Your task to perform on an android device: check data usage Image 0: 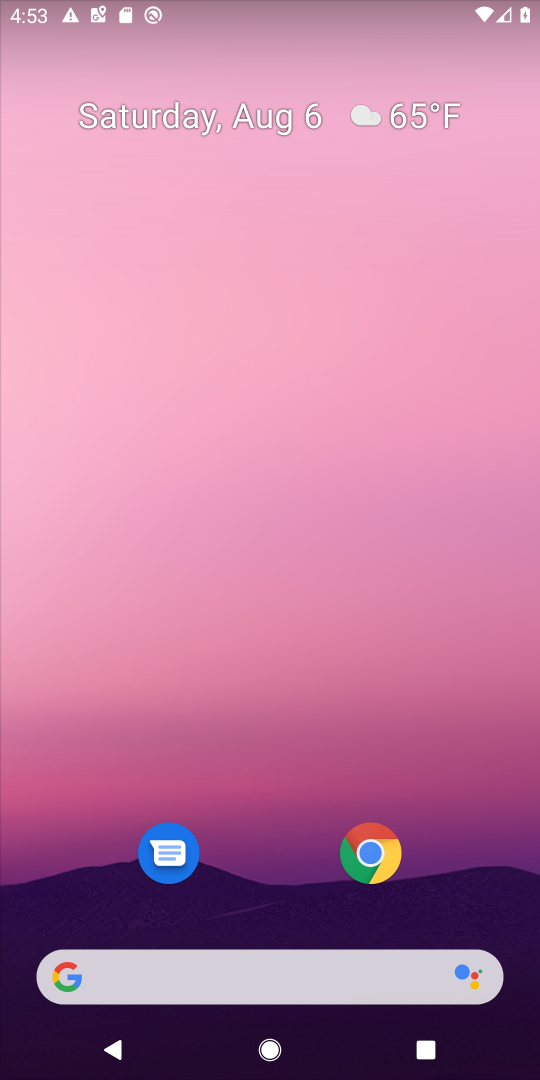
Step 0: drag from (299, 618) to (301, 155)
Your task to perform on an android device: check data usage Image 1: 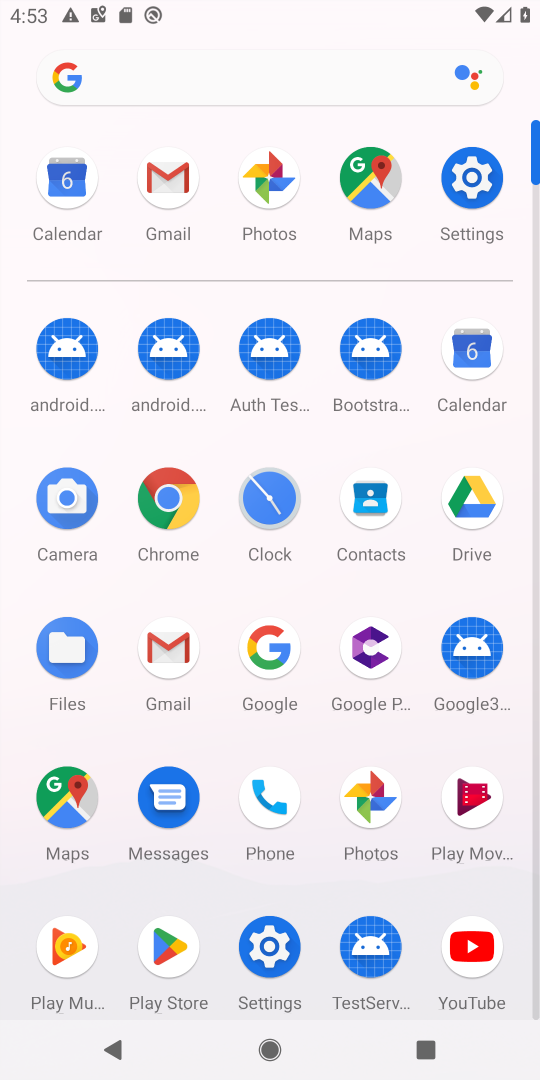
Step 1: click (487, 164)
Your task to perform on an android device: check data usage Image 2: 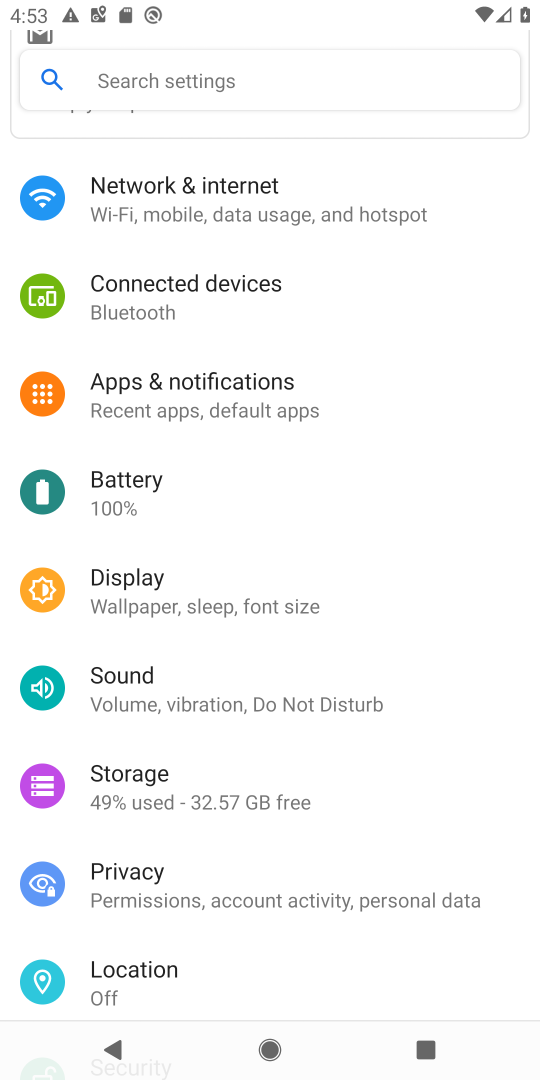
Step 2: drag from (384, 262) to (298, 922)
Your task to perform on an android device: check data usage Image 3: 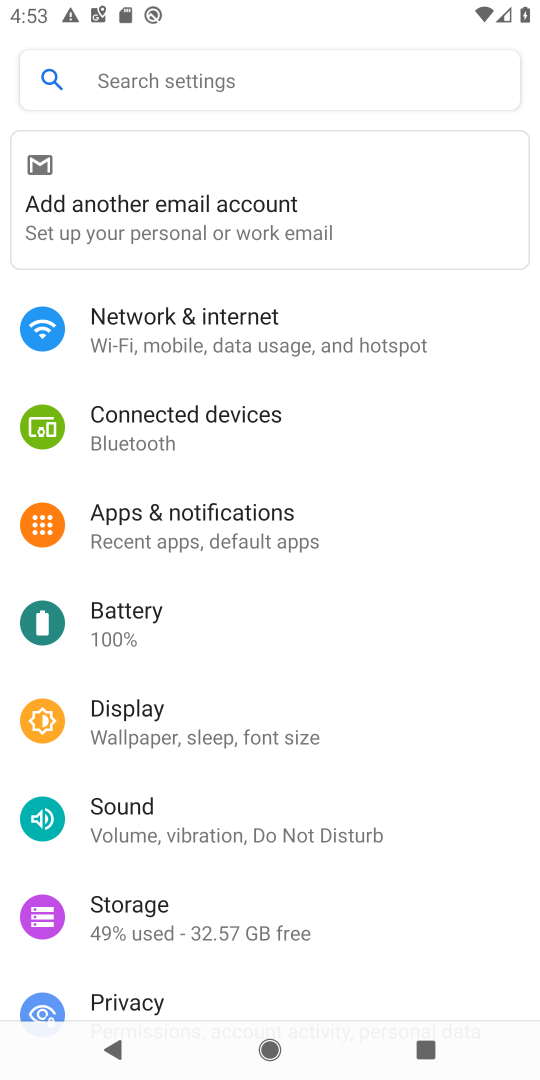
Step 3: click (274, 323)
Your task to perform on an android device: check data usage Image 4: 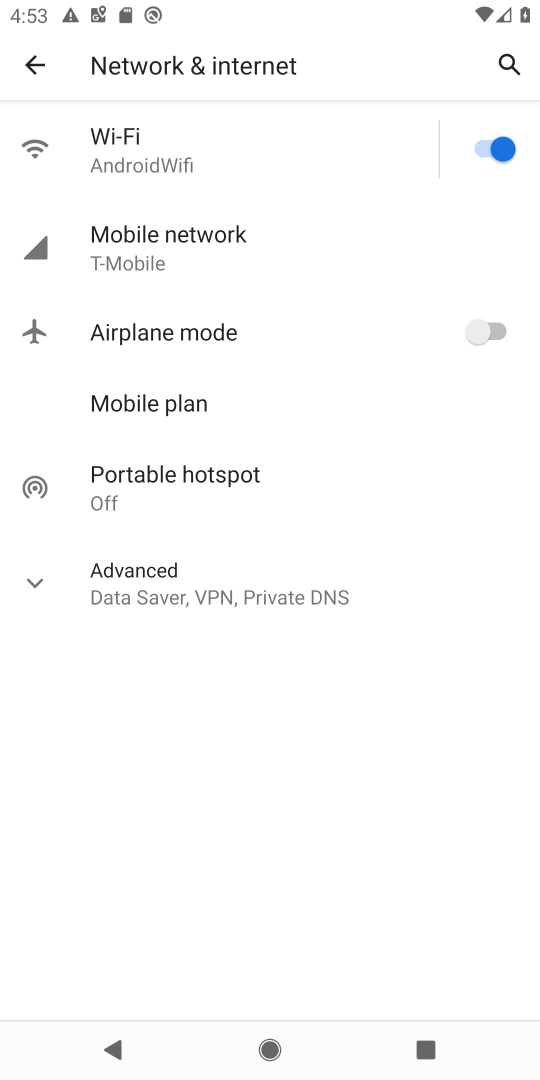
Step 4: click (198, 242)
Your task to perform on an android device: check data usage Image 5: 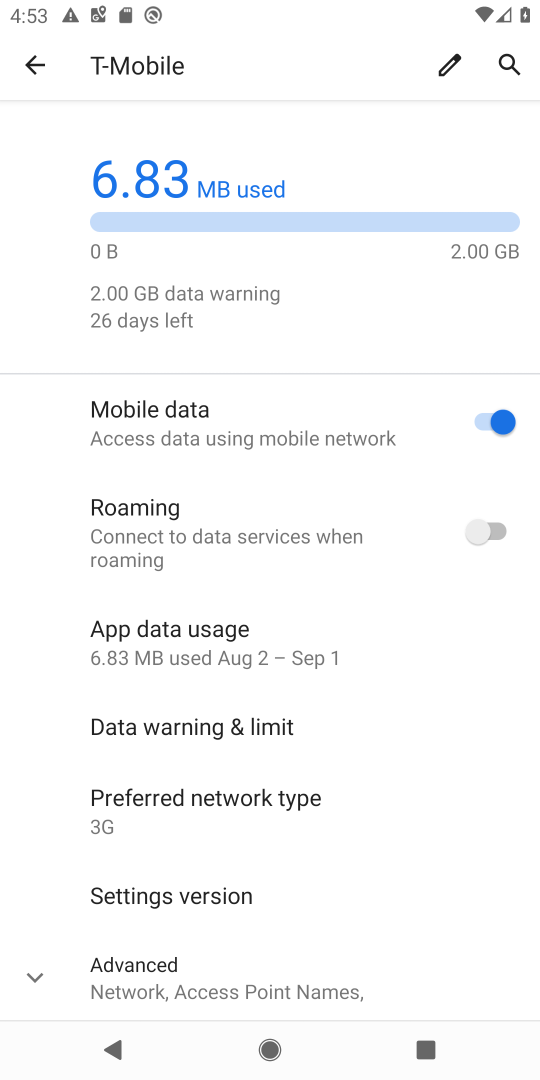
Step 5: click (219, 636)
Your task to perform on an android device: check data usage Image 6: 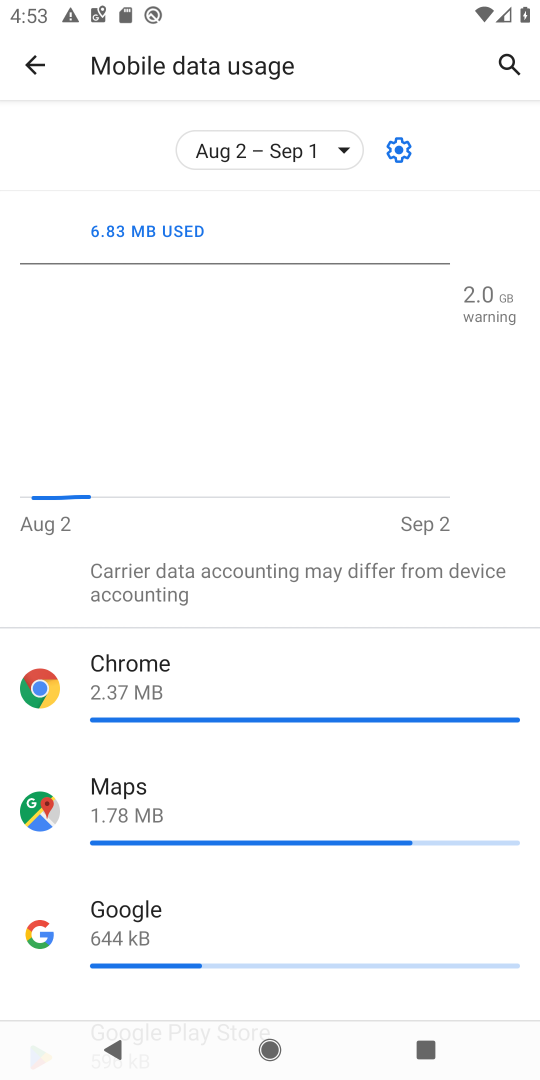
Step 6: task complete